Your task to perform on an android device: Open calendar and show me the first week of next month Image 0: 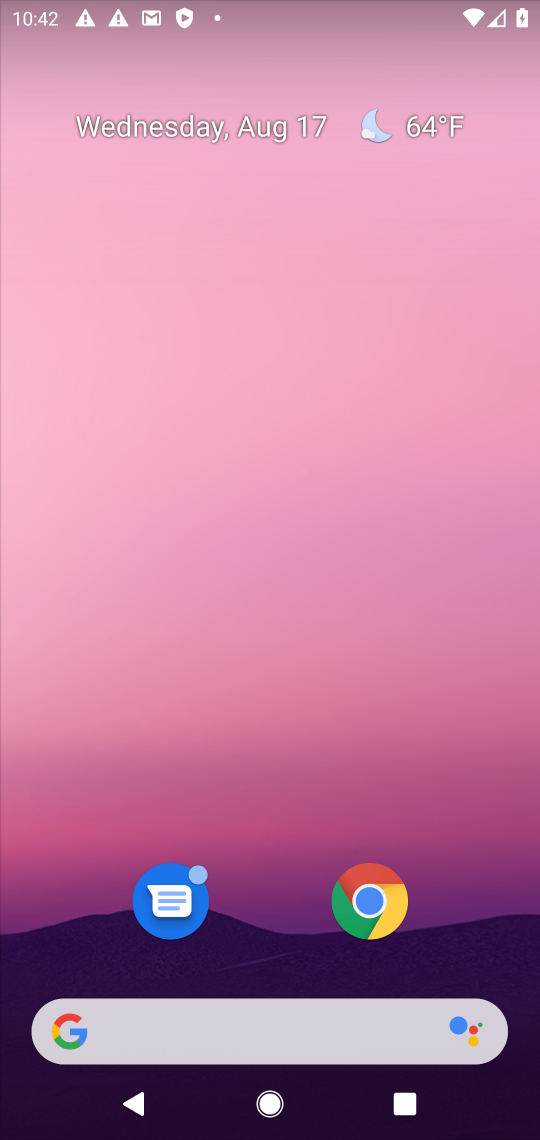
Step 0: drag from (286, 954) to (178, 1)
Your task to perform on an android device: Open calendar and show me the first week of next month Image 1: 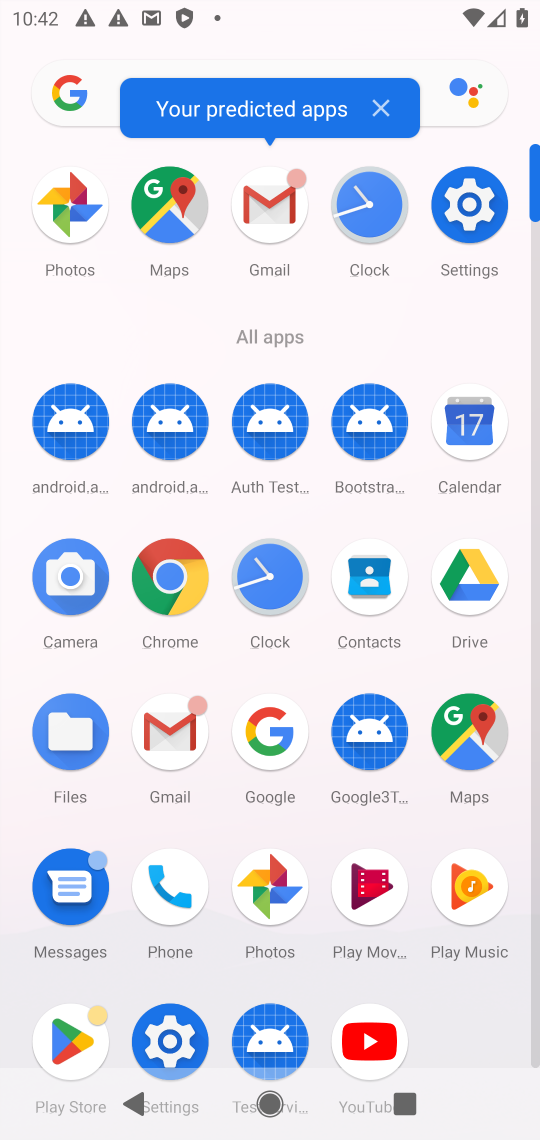
Step 1: click (468, 456)
Your task to perform on an android device: Open calendar and show me the first week of next month Image 2: 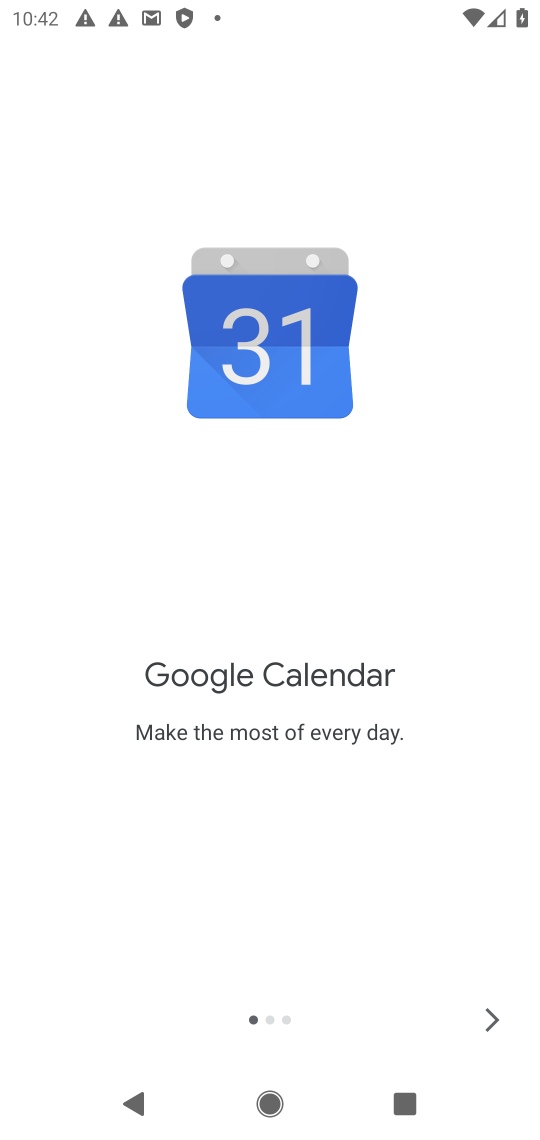
Step 2: click (483, 1026)
Your task to perform on an android device: Open calendar and show me the first week of next month Image 3: 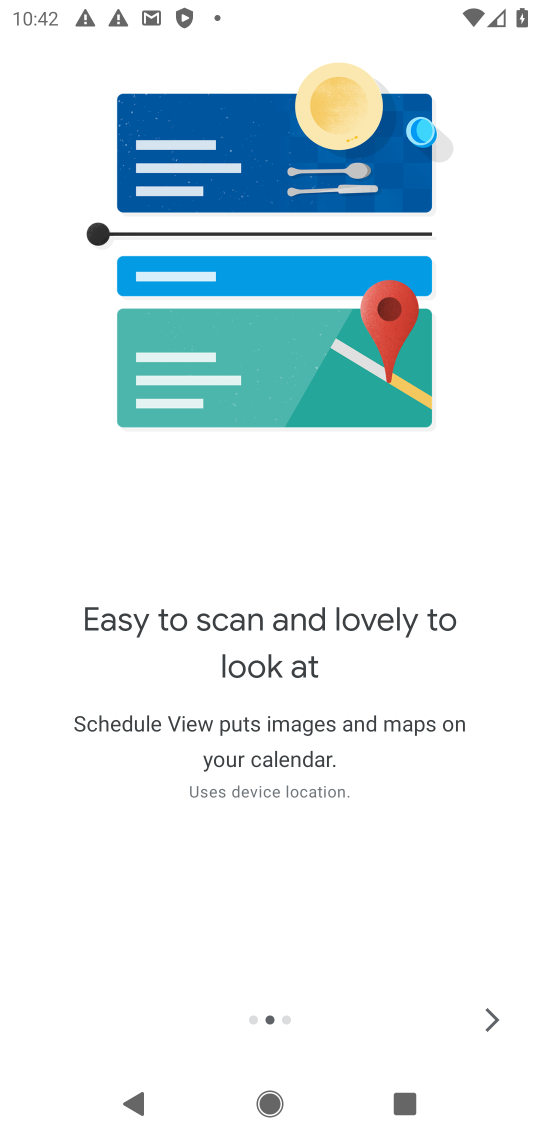
Step 3: click (485, 1025)
Your task to perform on an android device: Open calendar and show me the first week of next month Image 4: 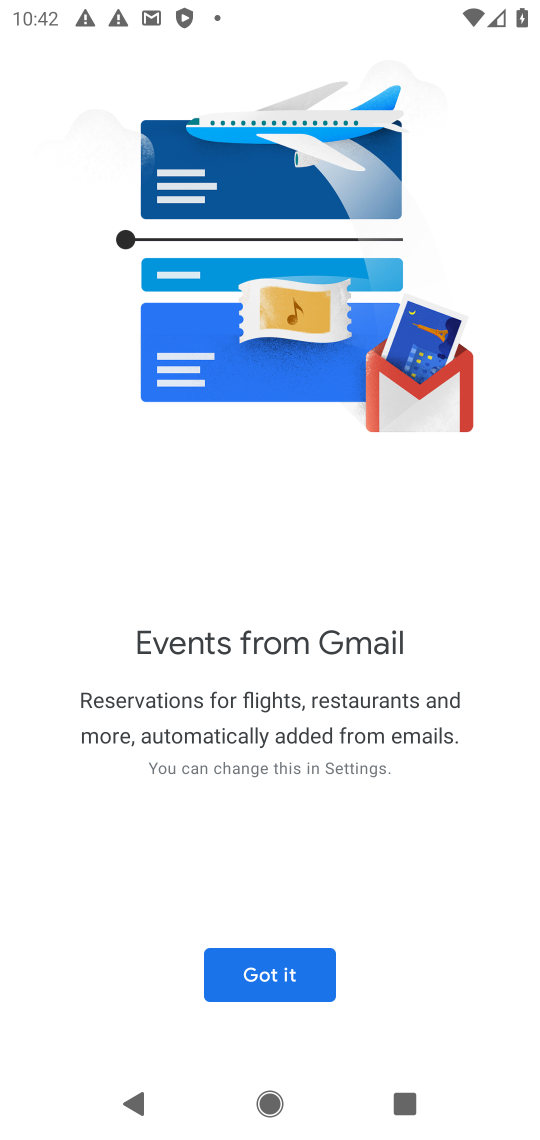
Step 4: click (306, 991)
Your task to perform on an android device: Open calendar and show me the first week of next month Image 5: 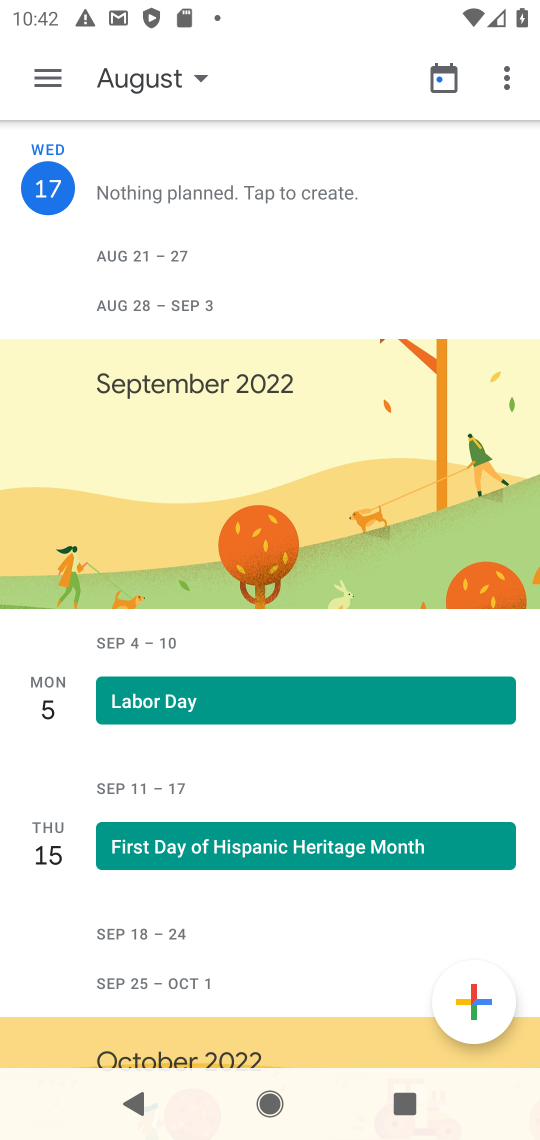
Step 5: click (185, 100)
Your task to perform on an android device: Open calendar and show me the first week of next month Image 6: 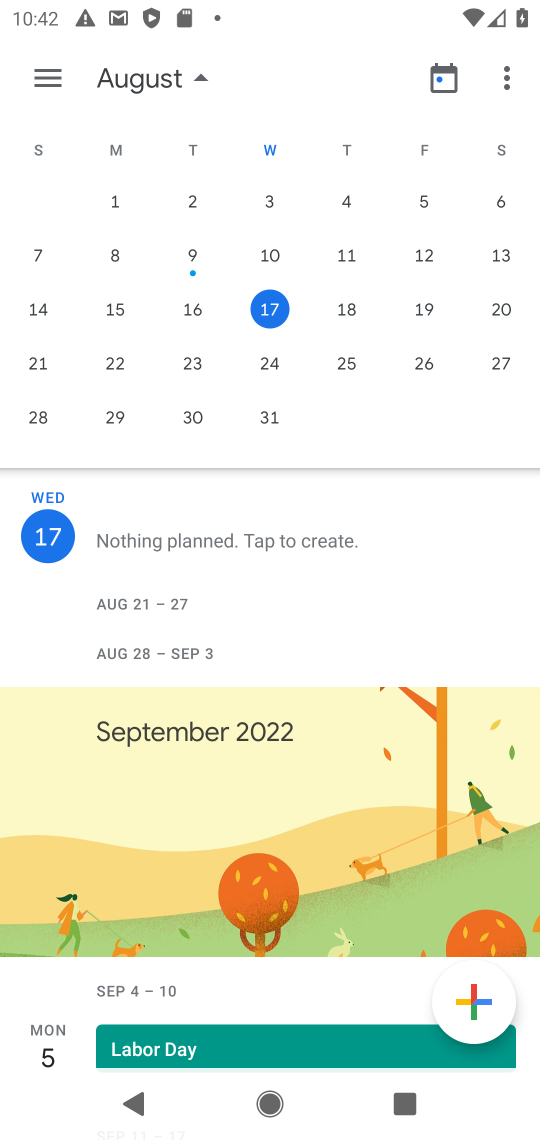
Step 6: drag from (402, 289) to (30, 274)
Your task to perform on an android device: Open calendar and show me the first week of next month Image 7: 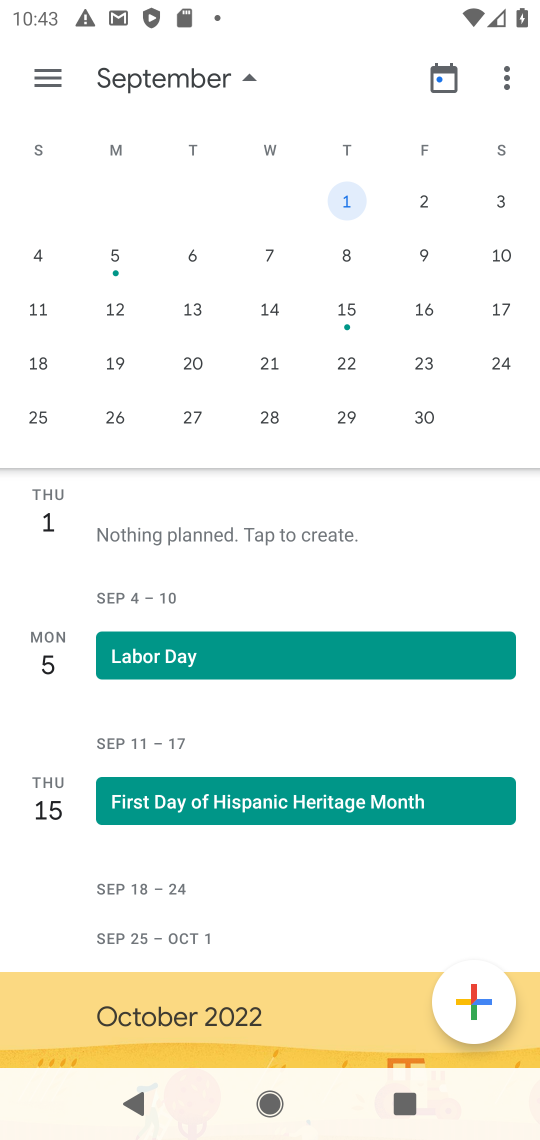
Step 7: click (421, 206)
Your task to perform on an android device: Open calendar and show me the first week of next month Image 8: 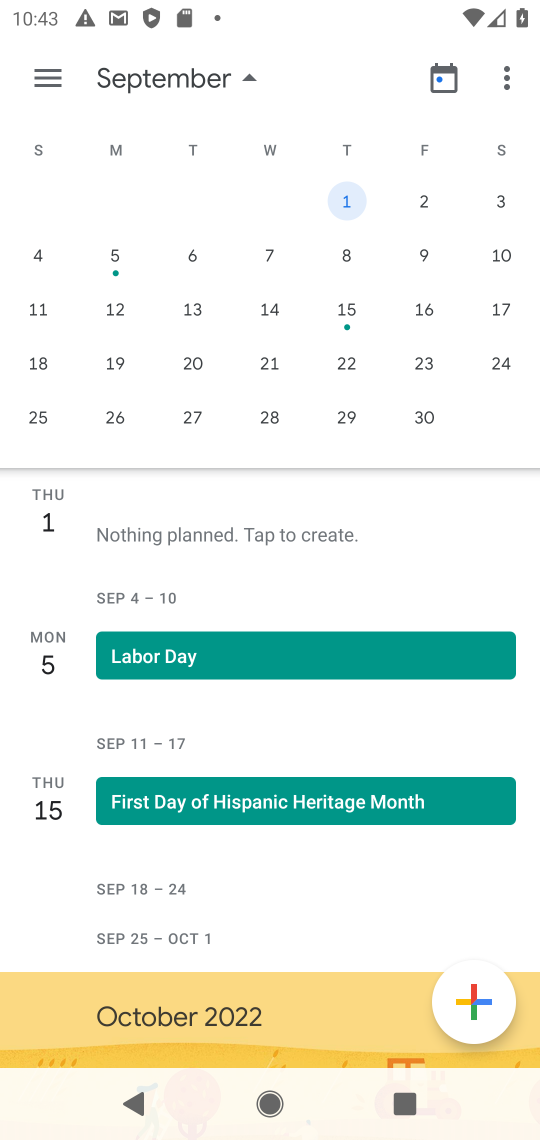
Step 8: click (507, 203)
Your task to perform on an android device: Open calendar and show me the first week of next month Image 9: 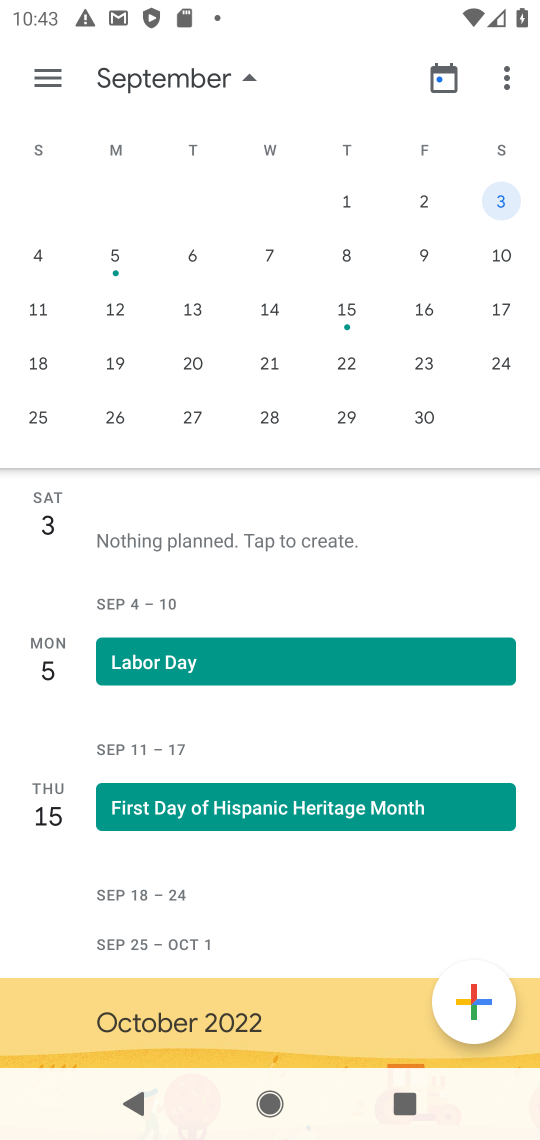
Step 9: task complete